Your task to perform on an android device: Go to Maps Image 0: 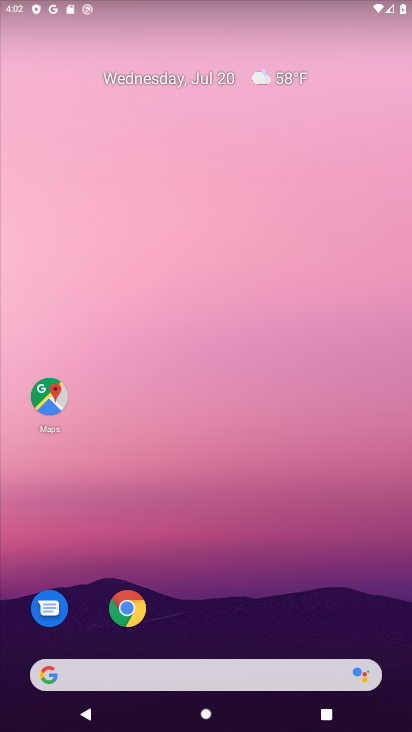
Step 0: click (60, 403)
Your task to perform on an android device: Go to Maps Image 1: 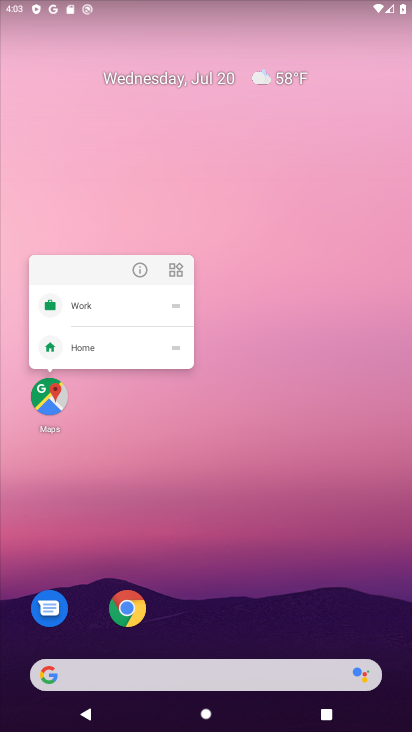
Step 1: click (60, 403)
Your task to perform on an android device: Go to Maps Image 2: 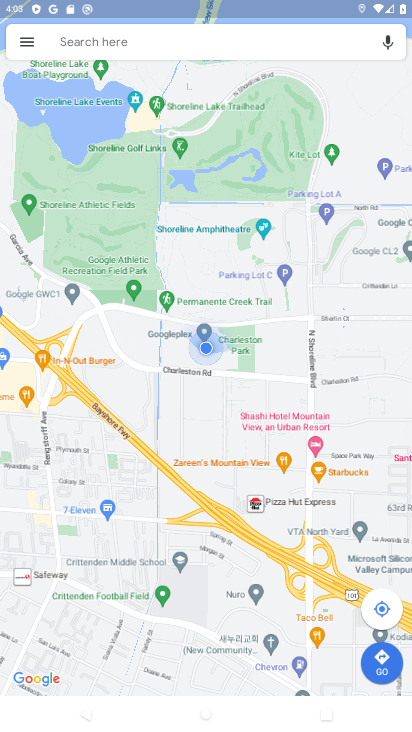
Step 2: task complete